Your task to perform on an android device: Go to eBay Image 0: 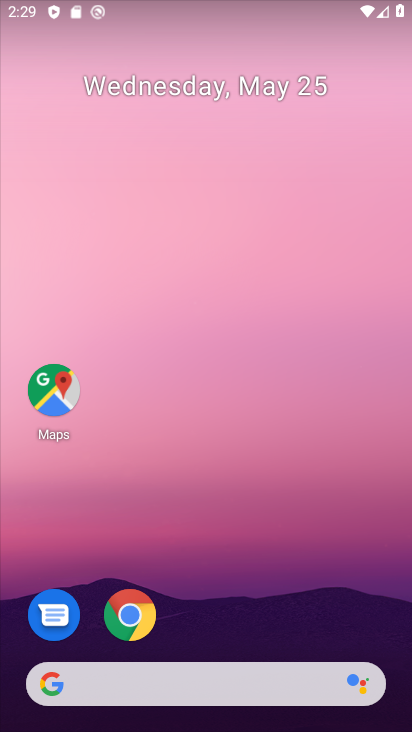
Step 0: click (122, 643)
Your task to perform on an android device: Go to eBay Image 1: 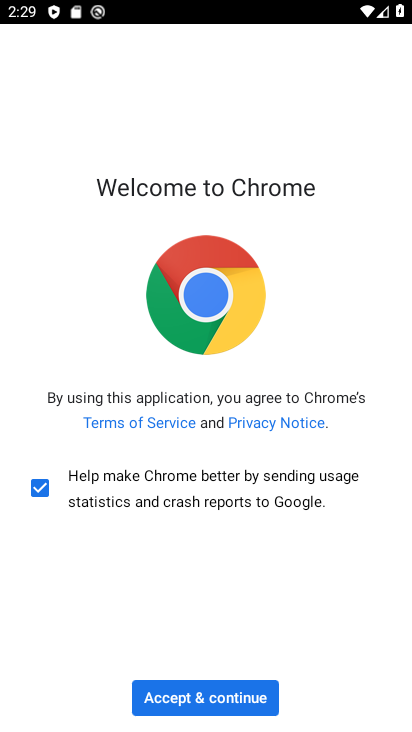
Step 1: click (222, 712)
Your task to perform on an android device: Go to eBay Image 2: 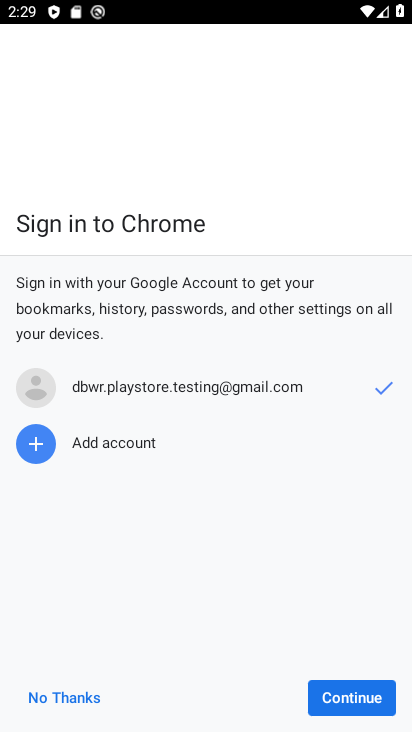
Step 2: click (389, 706)
Your task to perform on an android device: Go to eBay Image 3: 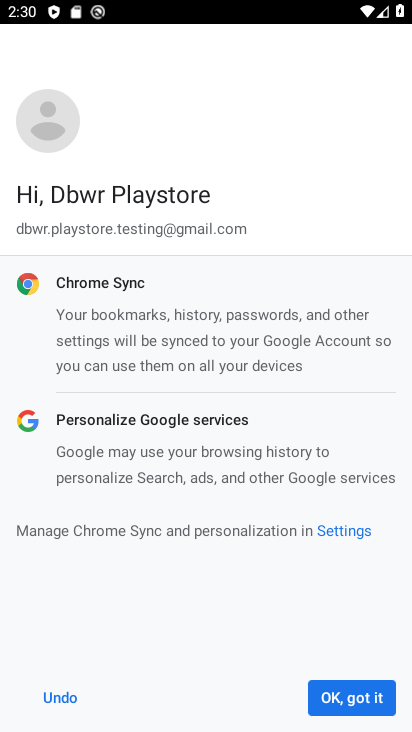
Step 3: click (373, 693)
Your task to perform on an android device: Go to eBay Image 4: 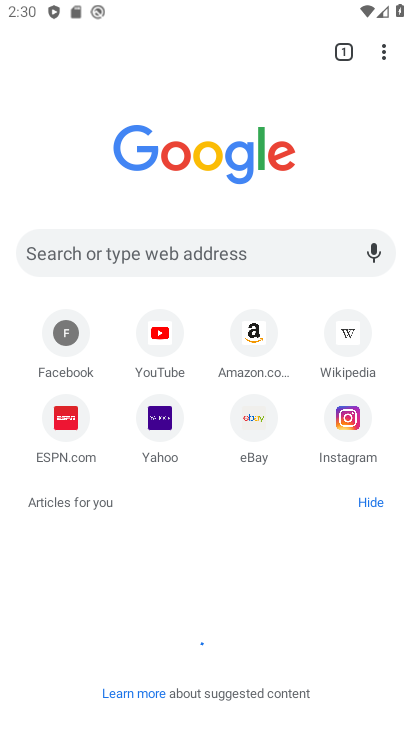
Step 4: click (255, 416)
Your task to perform on an android device: Go to eBay Image 5: 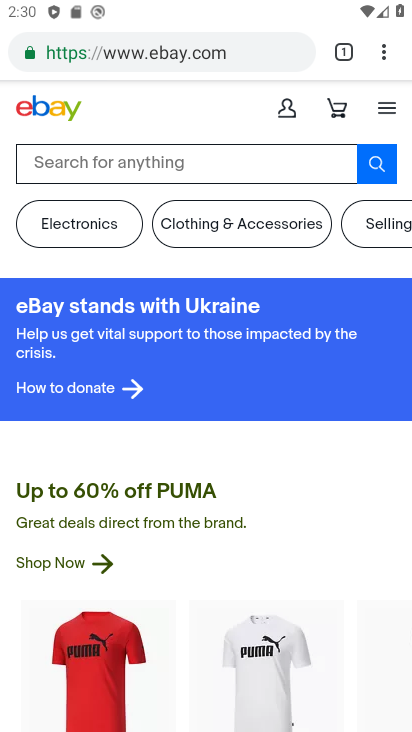
Step 5: task complete